Your task to perform on an android device: What is the news today? Image 0: 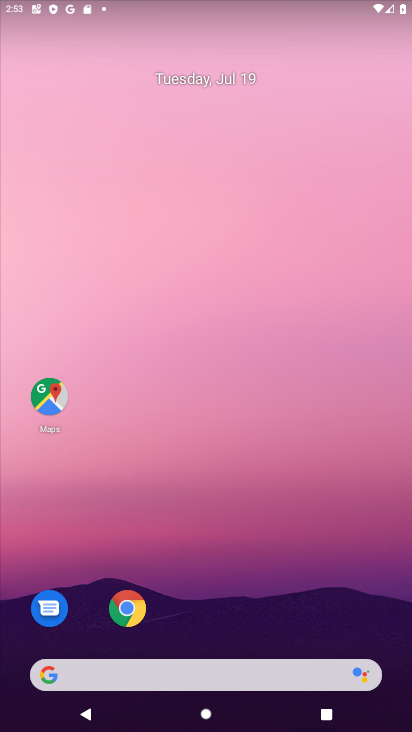
Step 0: drag from (304, 653) to (248, 124)
Your task to perform on an android device: What is the news today? Image 1: 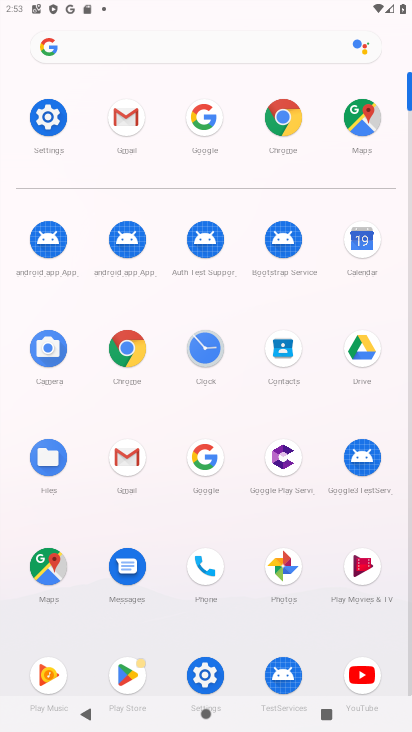
Step 1: click (283, 123)
Your task to perform on an android device: What is the news today? Image 2: 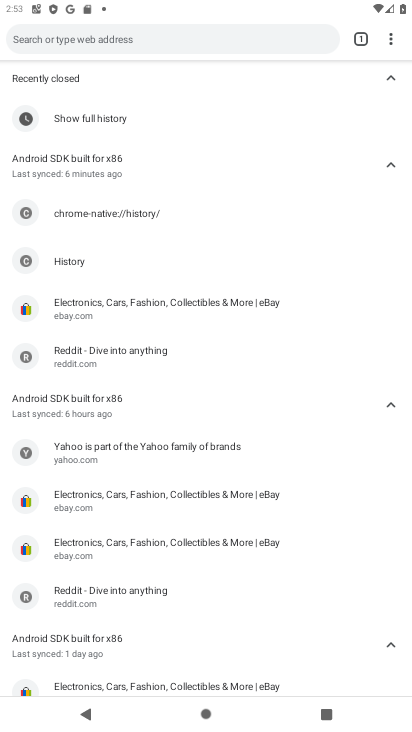
Step 2: click (163, 45)
Your task to perform on an android device: What is the news today? Image 3: 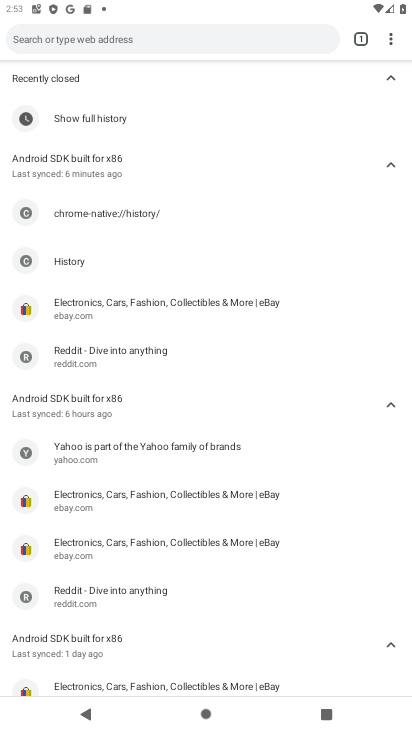
Step 3: click (163, 45)
Your task to perform on an android device: What is the news today? Image 4: 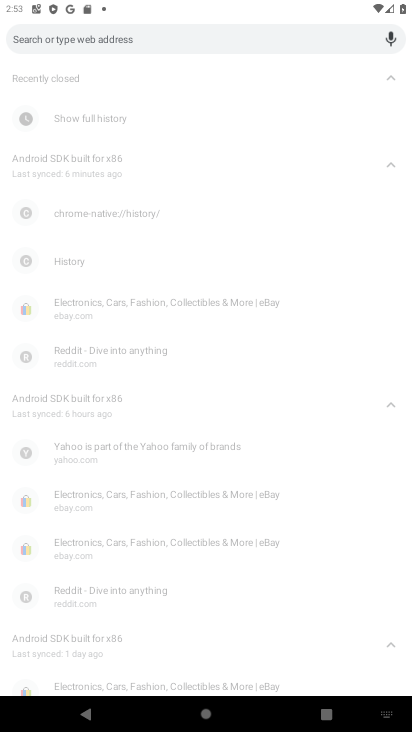
Step 4: type "news"
Your task to perform on an android device: What is the news today? Image 5: 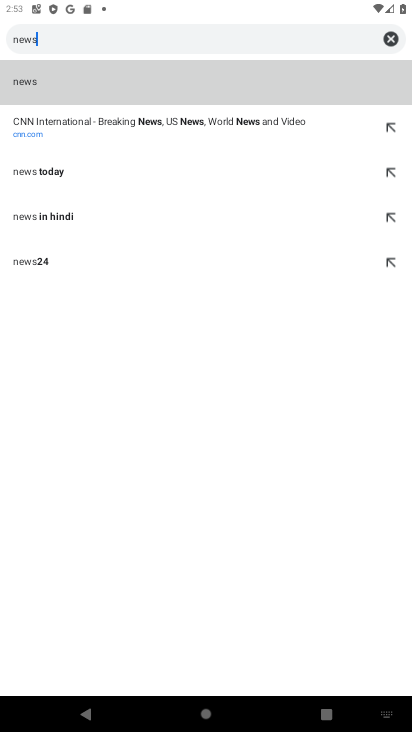
Step 5: click (39, 135)
Your task to perform on an android device: What is the news today? Image 6: 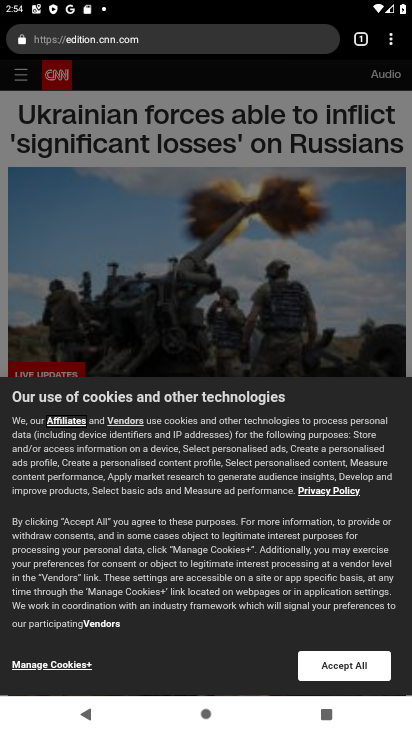
Step 6: click (237, 44)
Your task to perform on an android device: What is the news today? Image 7: 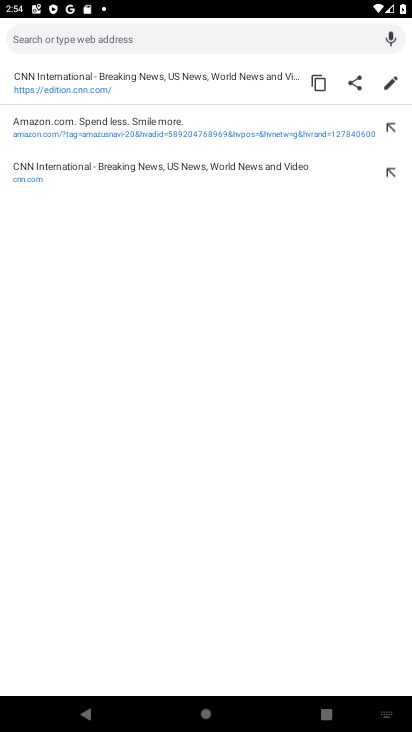
Step 7: type "news"
Your task to perform on an android device: What is the news today? Image 8: 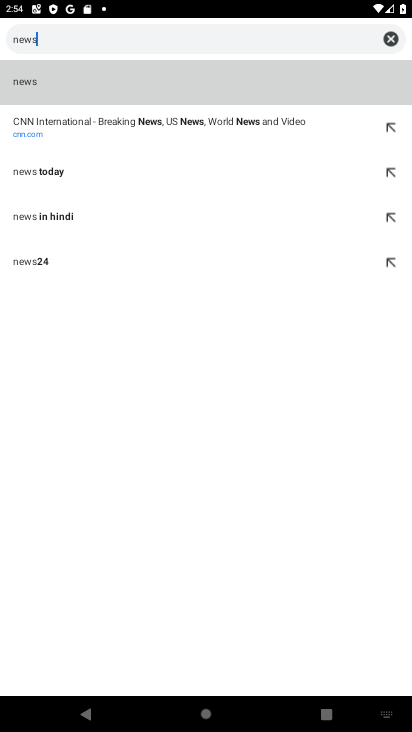
Step 8: click (17, 79)
Your task to perform on an android device: What is the news today? Image 9: 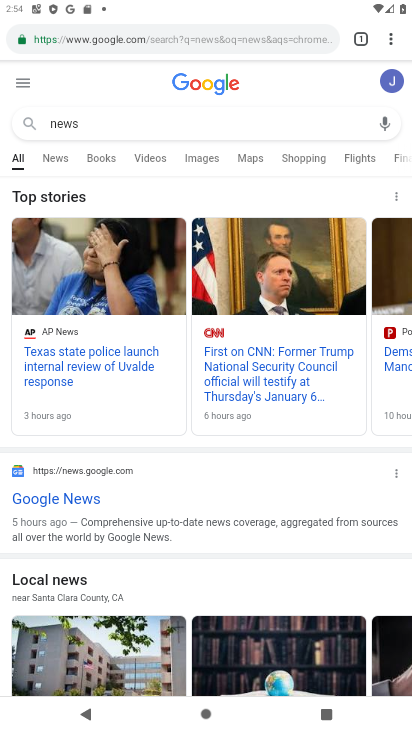
Step 9: click (60, 498)
Your task to perform on an android device: What is the news today? Image 10: 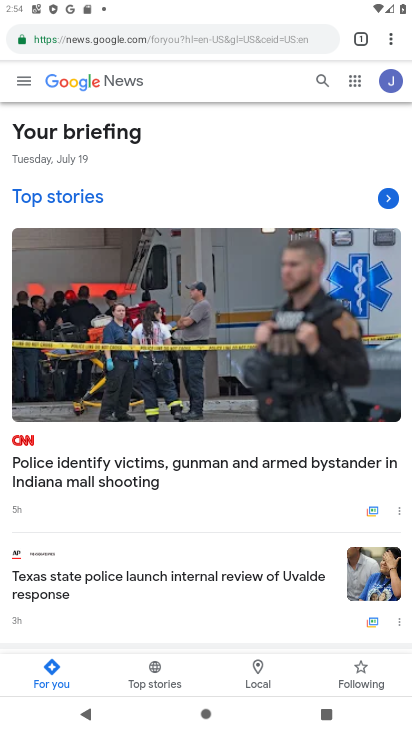
Step 10: task complete